Your task to perform on an android device: Turn on the flashlight Image 0: 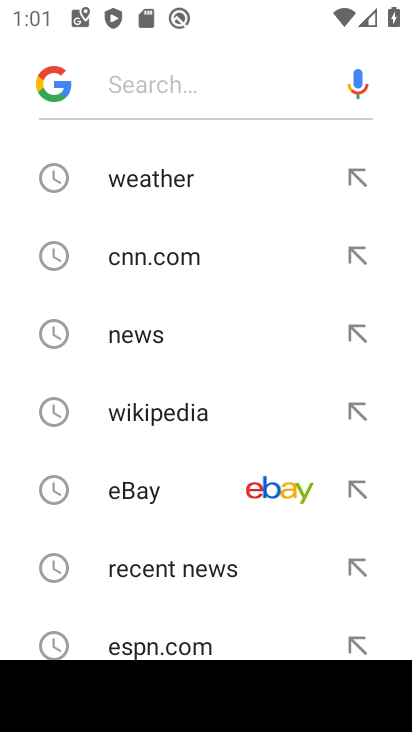
Step 0: press home button
Your task to perform on an android device: Turn on the flashlight Image 1: 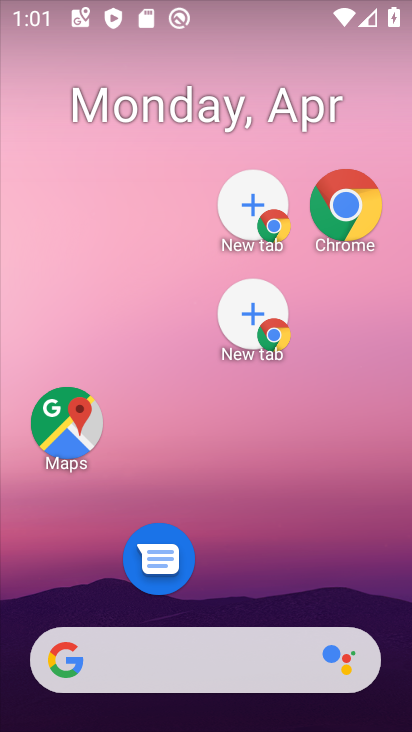
Step 1: drag from (285, 730) to (203, 190)
Your task to perform on an android device: Turn on the flashlight Image 2: 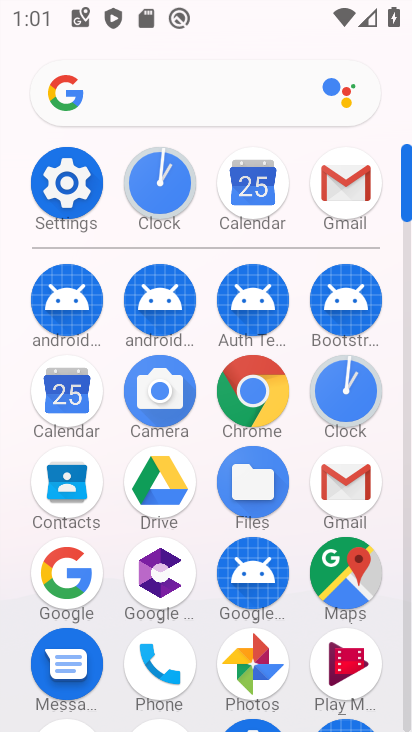
Step 2: click (52, 196)
Your task to perform on an android device: Turn on the flashlight Image 3: 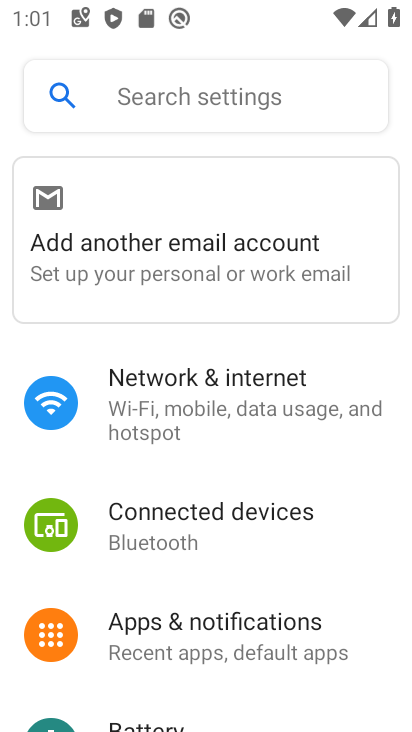
Step 3: drag from (89, 626) to (281, 208)
Your task to perform on an android device: Turn on the flashlight Image 4: 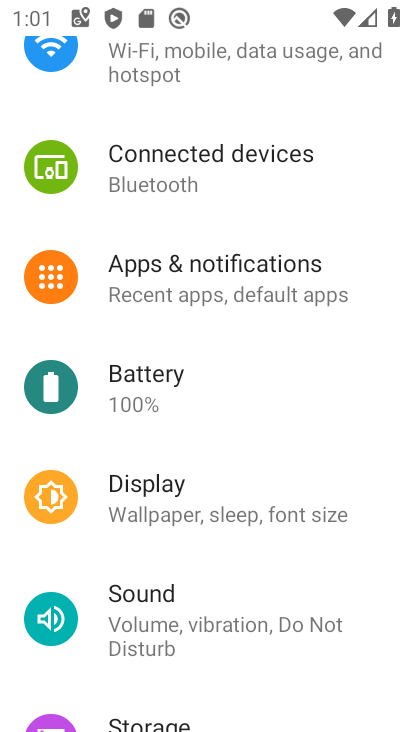
Step 4: click (151, 282)
Your task to perform on an android device: Turn on the flashlight Image 5: 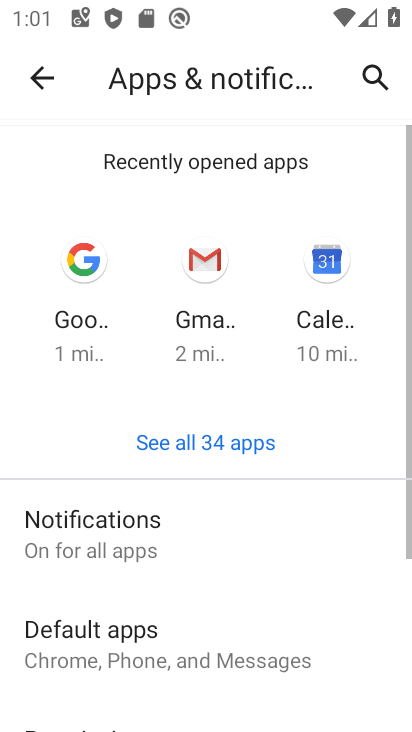
Step 5: task complete